Your task to perform on an android device: open app "Firefox Browser" Image 0: 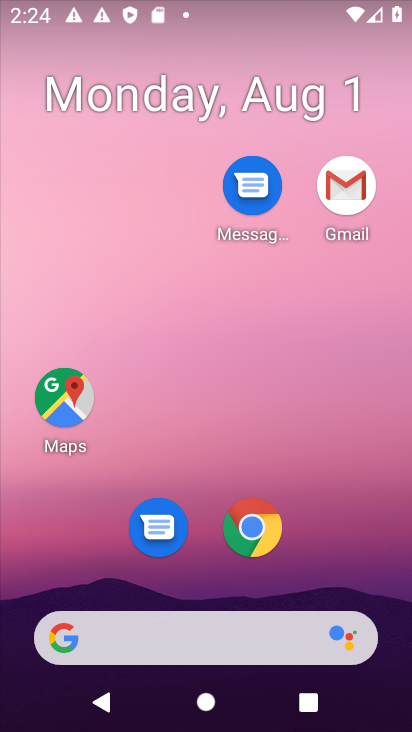
Step 0: drag from (242, 607) to (257, 133)
Your task to perform on an android device: open app "Firefox Browser" Image 1: 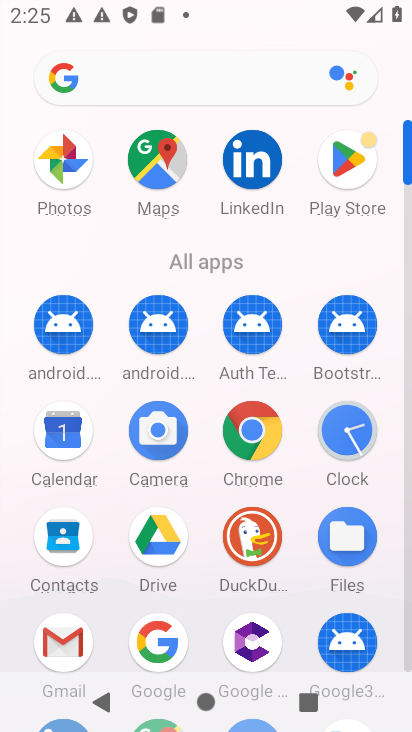
Step 1: click (357, 149)
Your task to perform on an android device: open app "Firefox Browser" Image 2: 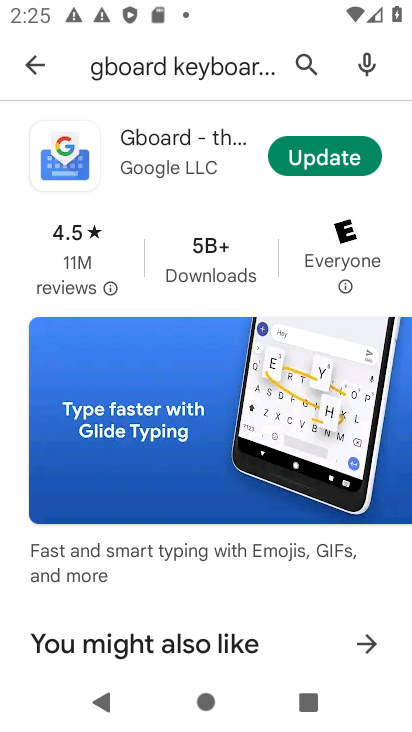
Step 2: click (306, 67)
Your task to perform on an android device: open app "Firefox Browser" Image 3: 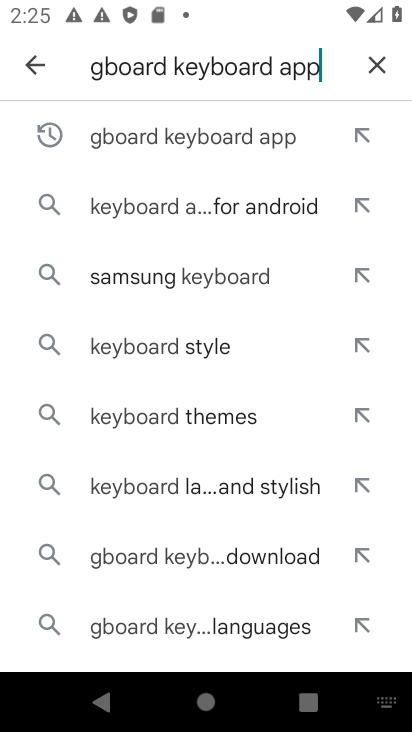
Step 3: click (388, 63)
Your task to perform on an android device: open app "Firefox Browser" Image 4: 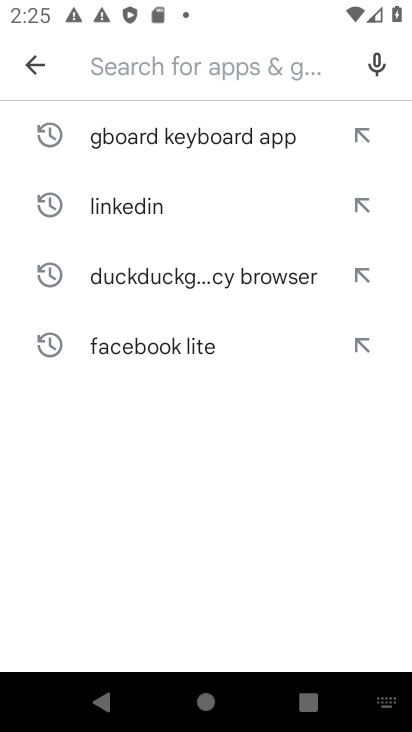
Step 4: type "firefox browser"
Your task to perform on an android device: open app "Firefox Browser" Image 5: 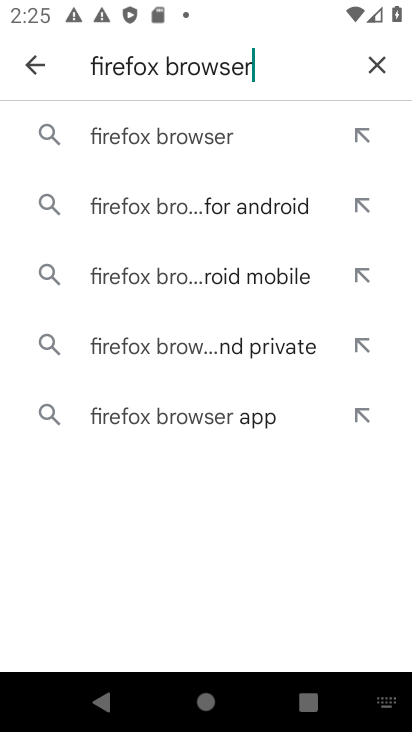
Step 5: click (220, 149)
Your task to perform on an android device: open app "Firefox Browser" Image 6: 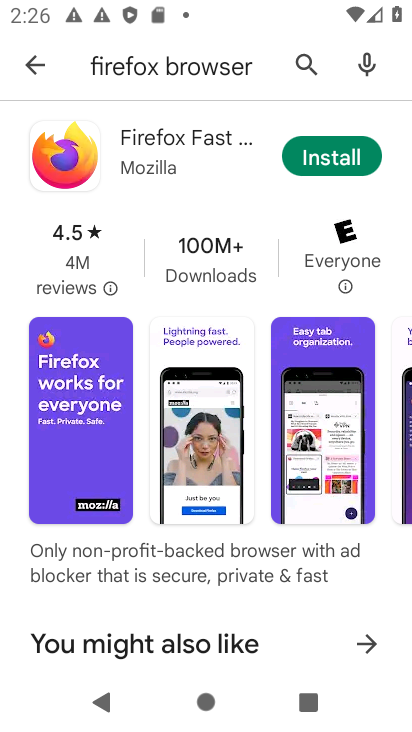
Step 6: task complete